Your task to perform on an android device: refresh tabs in the chrome app Image 0: 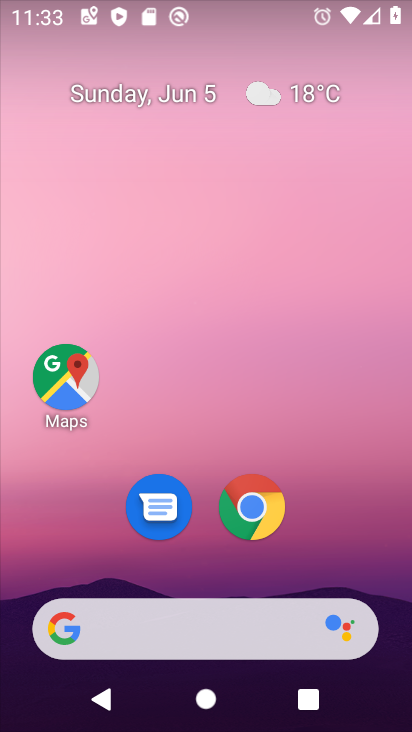
Step 0: click (252, 507)
Your task to perform on an android device: refresh tabs in the chrome app Image 1: 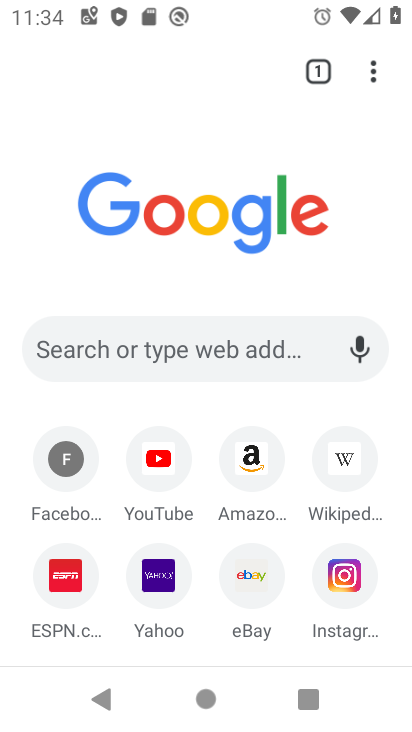
Step 1: click (373, 79)
Your task to perform on an android device: refresh tabs in the chrome app Image 2: 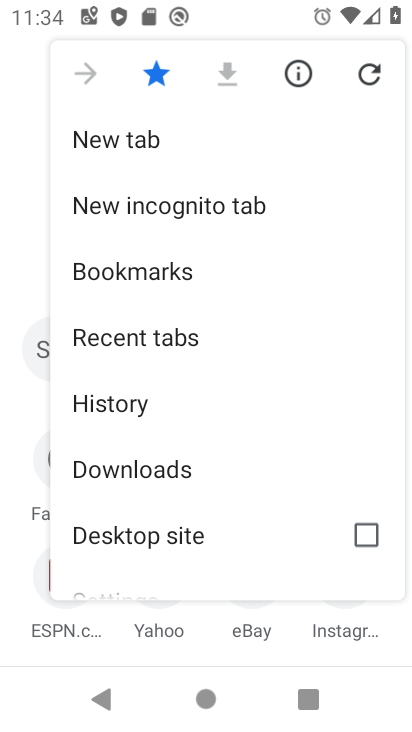
Step 2: click (378, 68)
Your task to perform on an android device: refresh tabs in the chrome app Image 3: 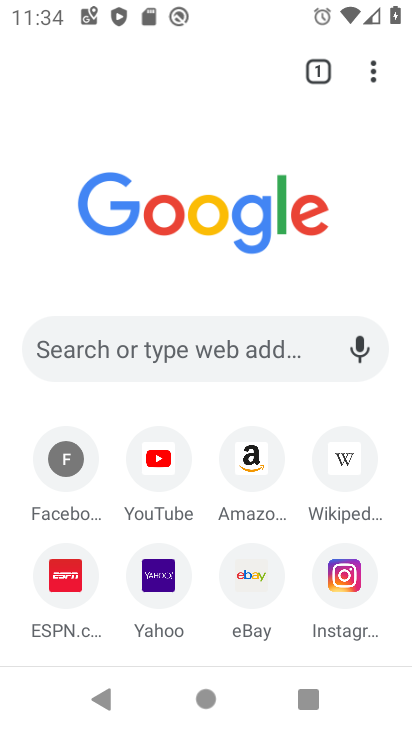
Step 3: task complete